Your task to perform on an android device: Go to battery settings Image 0: 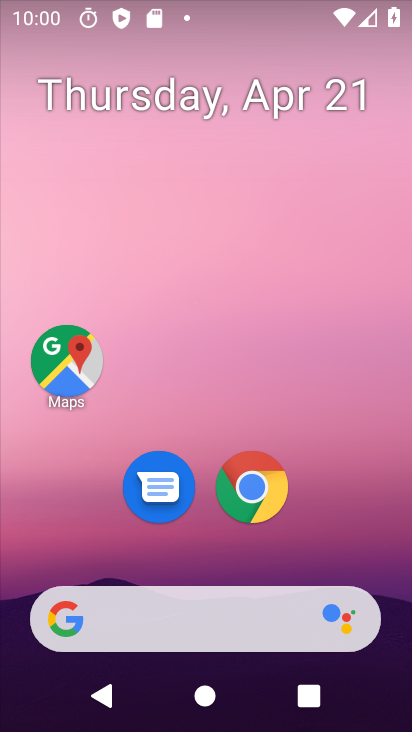
Step 0: click (343, 233)
Your task to perform on an android device: Go to battery settings Image 1: 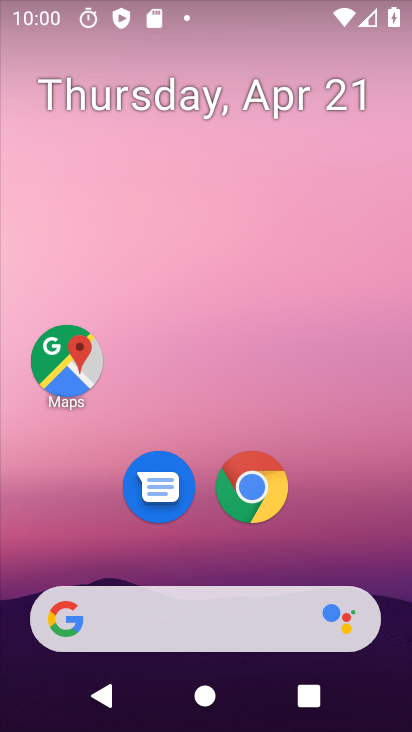
Step 1: drag from (398, 584) to (385, 304)
Your task to perform on an android device: Go to battery settings Image 2: 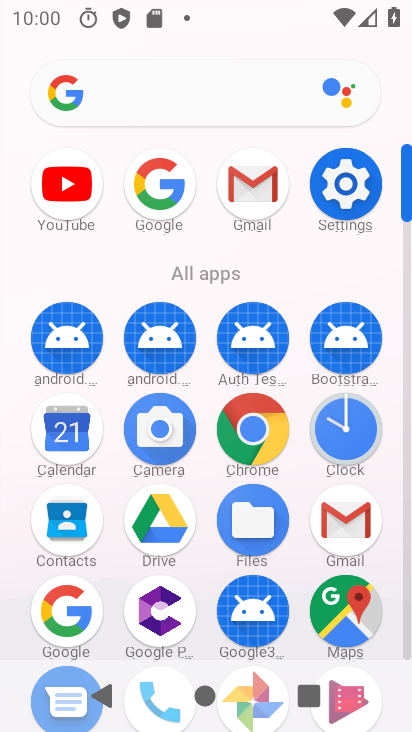
Step 2: drag from (403, 124) to (391, 11)
Your task to perform on an android device: Go to battery settings Image 3: 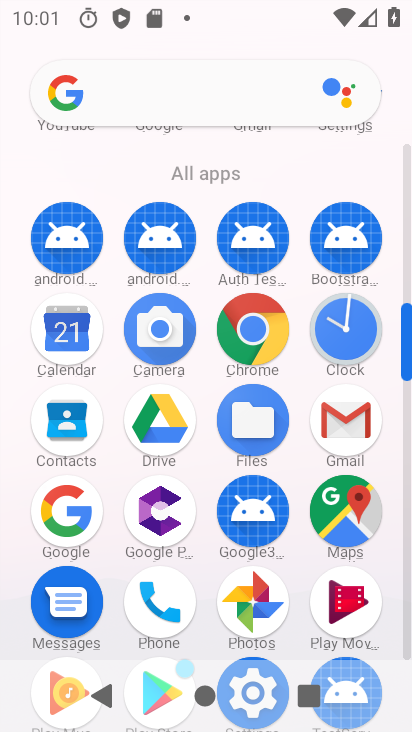
Step 3: drag from (407, 283) to (408, 143)
Your task to perform on an android device: Go to battery settings Image 4: 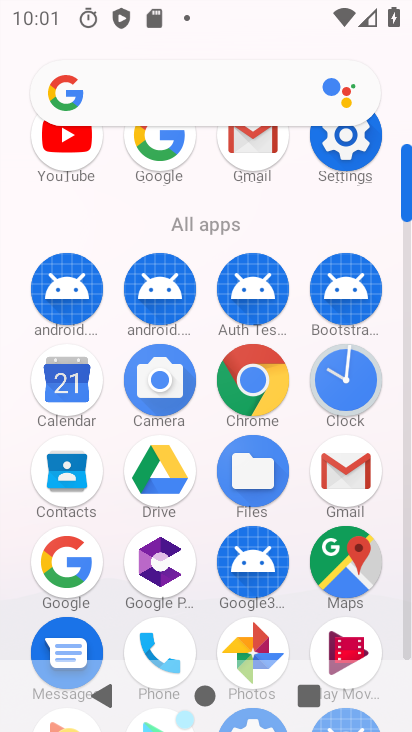
Step 4: click (399, 108)
Your task to perform on an android device: Go to battery settings Image 5: 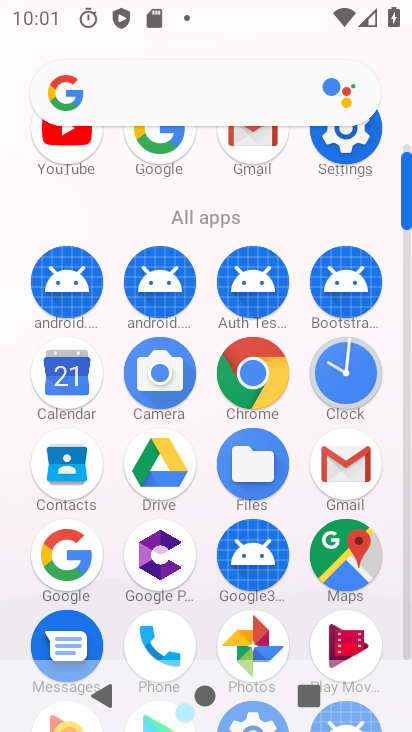
Step 5: click (398, 95)
Your task to perform on an android device: Go to battery settings Image 6: 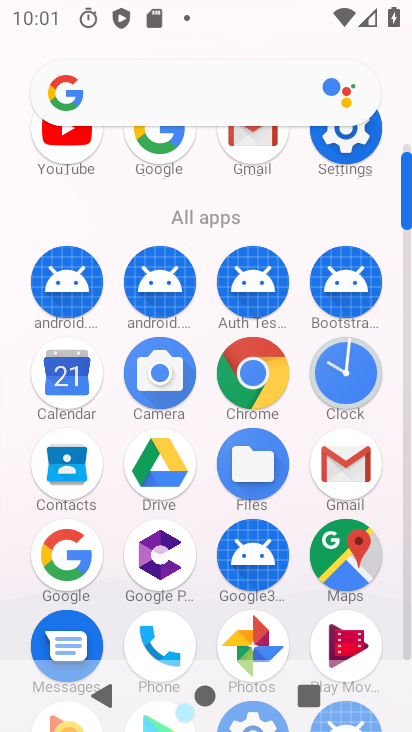
Step 6: drag from (401, 165) to (402, 120)
Your task to perform on an android device: Go to battery settings Image 7: 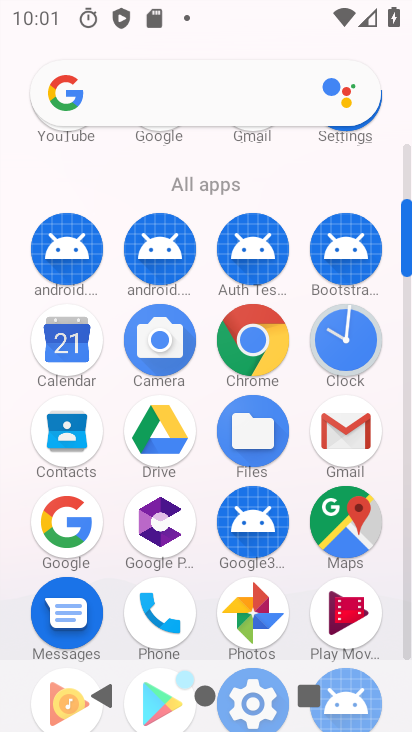
Step 7: drag from (404, 206) to (399, 146)
Your task to perform on an android device: Go to battery settings Image 8: 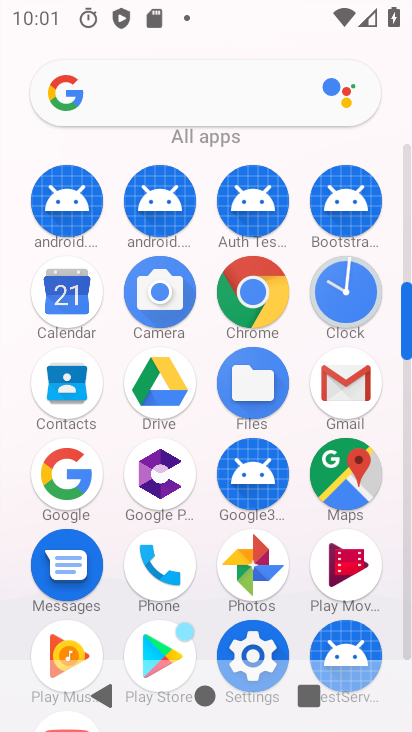
Step 8: click (262, 643)
Your task to perform on an android device: Go to battery settings Image 9: 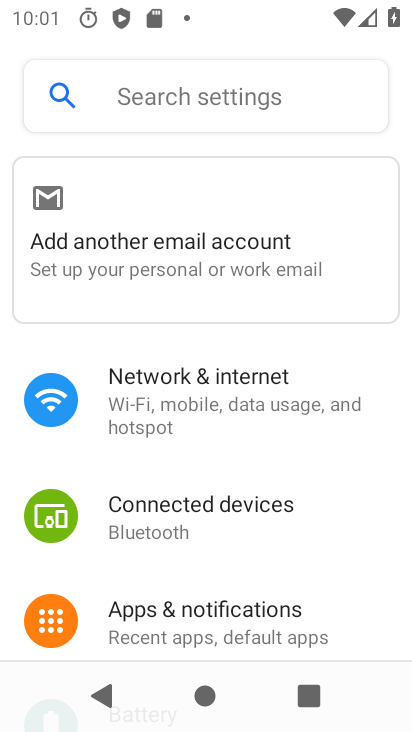
Step 9: click (350, 335)
Your task to perform on an android device: Go to battery settings Image 10: 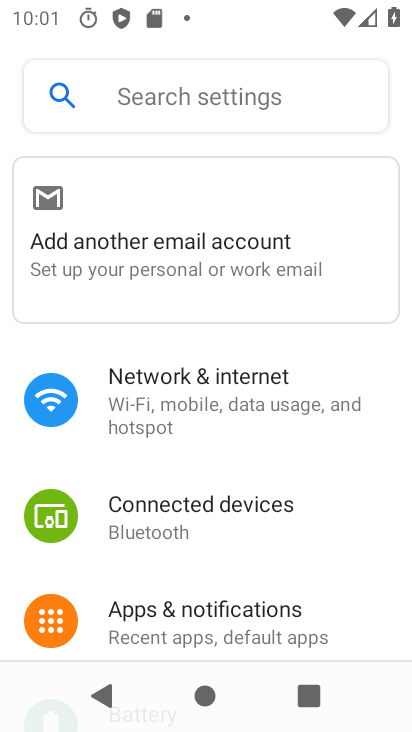
Step 10: drag from (373, 607) to (370, 305)
Your task to perform on an android device: Go to battery settings Image 11: 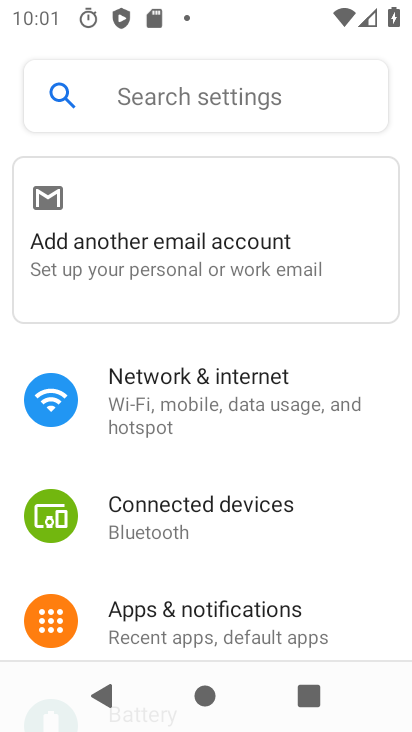
Step 11: drag from (366, 411) to (366, 317)
Your task to perform on an android device: Go to battery settings Image 12: 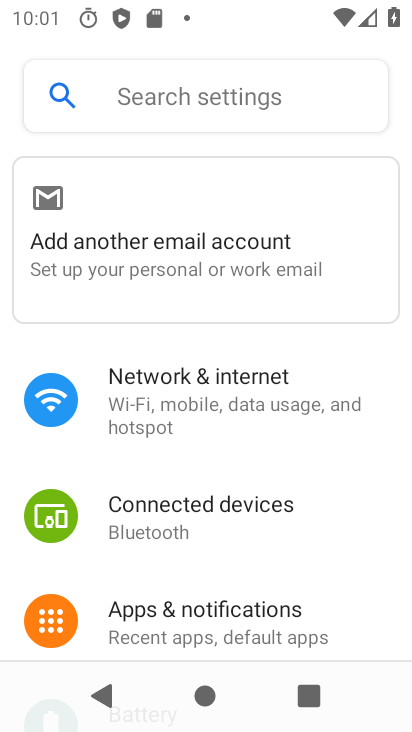
Step 12: drag from (368, 587) to (372, 328)
Your task to perform on an android device: Go to battery settings Image 13: 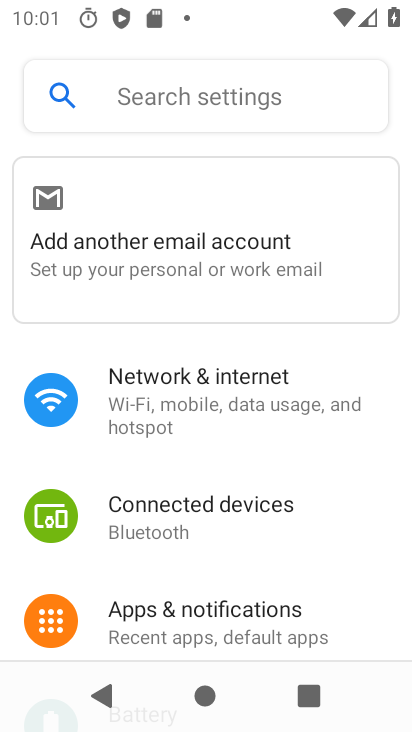
Step 13: drag from (362, 495) to (353, 280)
Your task to perform on an android device: Go to battery settings Image 14: 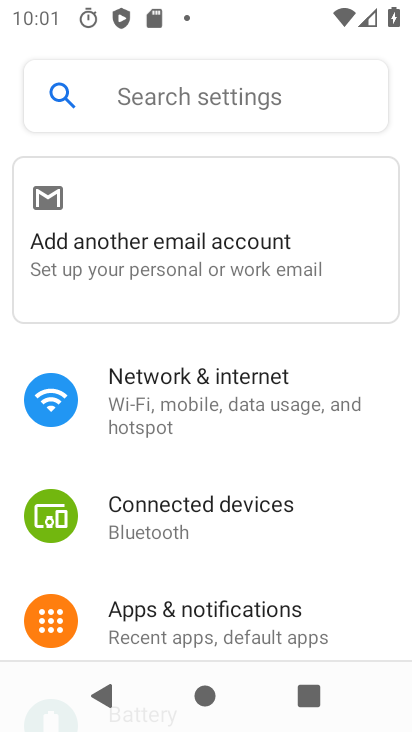
Step 14: drag from (358, 464) to (355, 304)
Your task to perform on an android device: Go to battery settings Image 15: 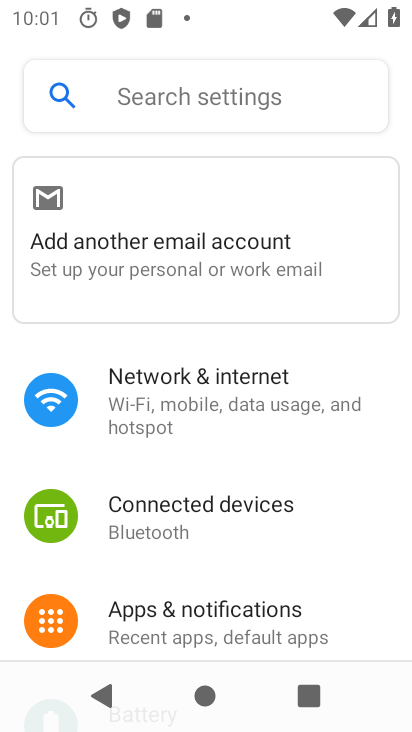
Step 15: drag from (358, 468) to (355, 308)
Your task to perform on an android device: Go to battery settings Image 16: 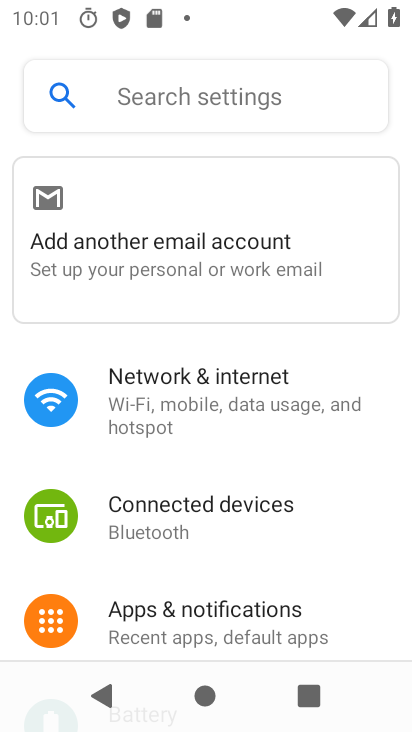
Step 16: drag from (369, 540) to (375, 340)
Your task to perform on an android device: Go to battery settings Image 17: 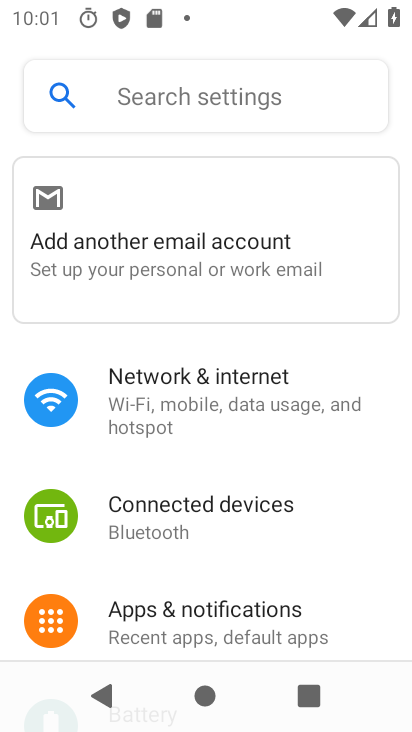
Step 17: drag from (375, 598) to (376, 210)
Your task to perform on an android device: Go to battery settings Image 18: 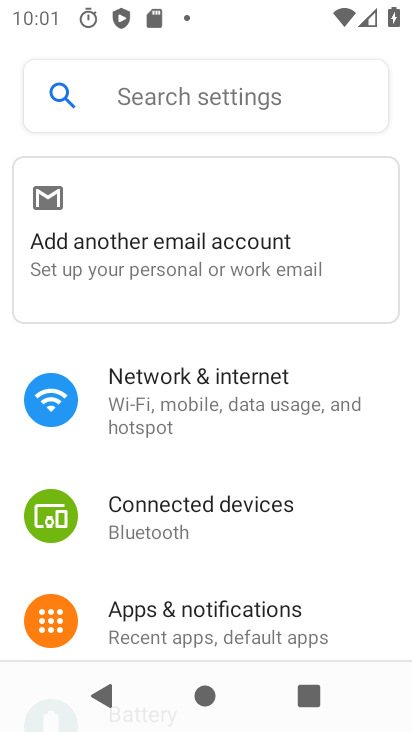
Step 18: drag from (379, 619) to (394, 243)
Your task to perform on an android device: Go to battery settings Image 19: 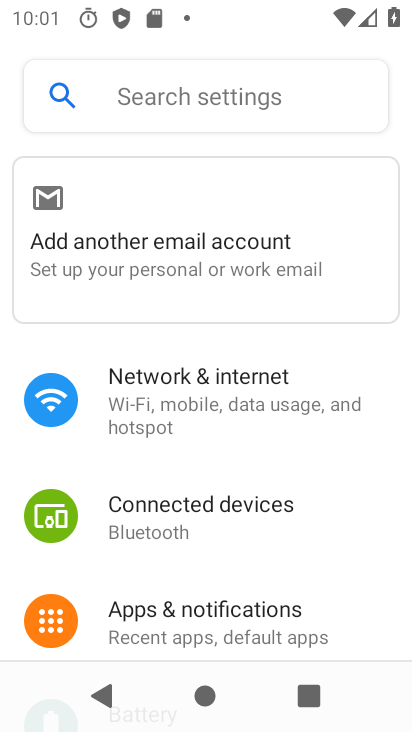
Step 19: drag from (378, 640) to (375, 243)
Your task to perform on an android device: Go to battery settings Image 20: 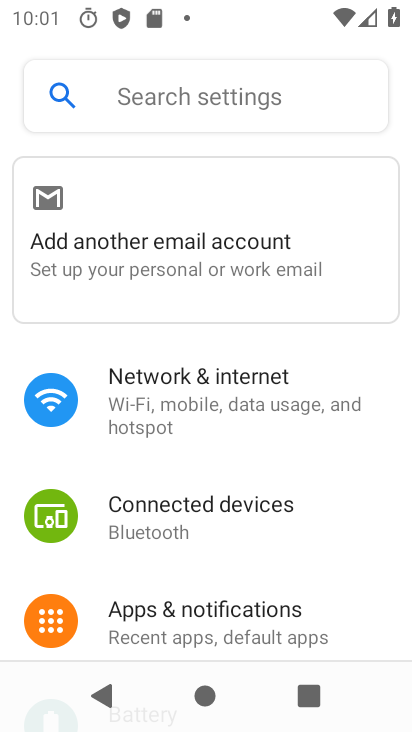
Step 20: drag from (364, 573) to (349, 205)
Your task to perform on an android device: Go to battery settings Image 21: 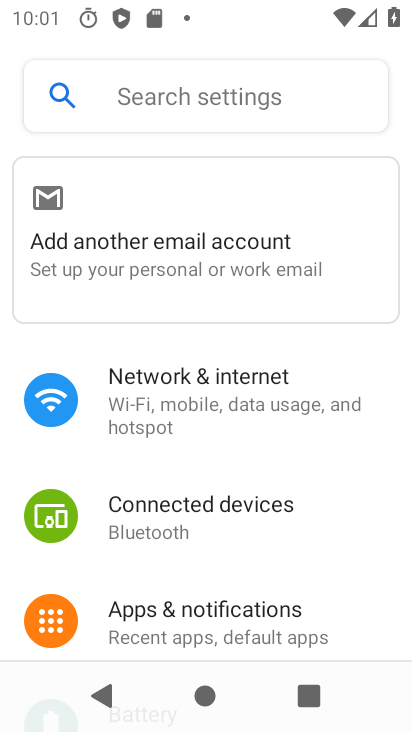
Step 21: drag from (364, 602) to (364, 333)
Your task to perform on an android device: Go to battery settings Image 22: 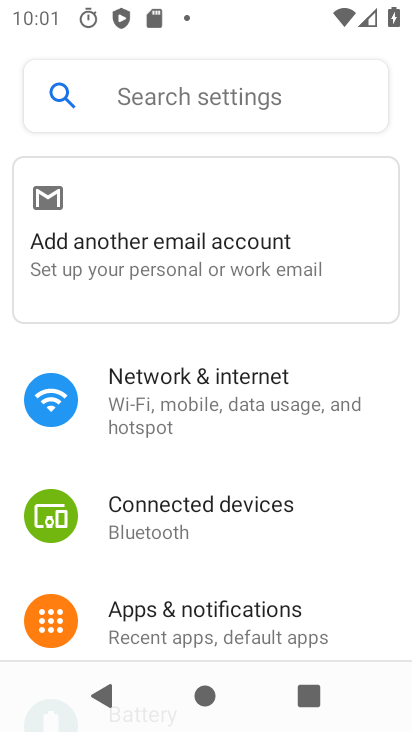
Step 22: drag from (351, 402) to (348, 328)
Your task to perform on an android device: Go to battery settings Image 23: 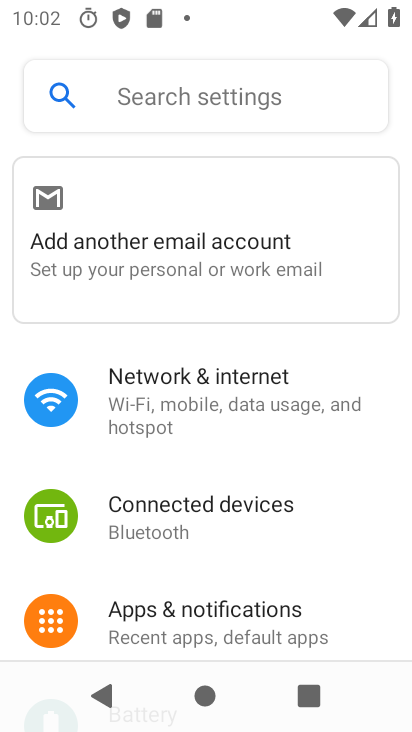
Step 23: drag from (402, 379) to (406, 228)
Your task to perform on an android device: Go to battery settings Image 24: 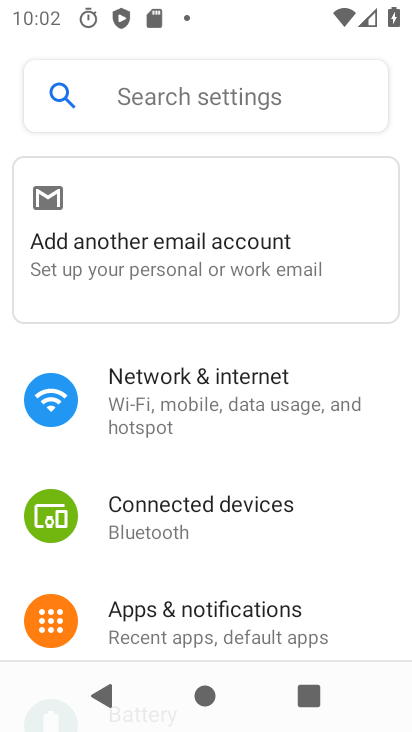
Step 24: drag from (365, 630) to (368, 338)
Your task to perform on an android device: Go to battery settings Image 25: 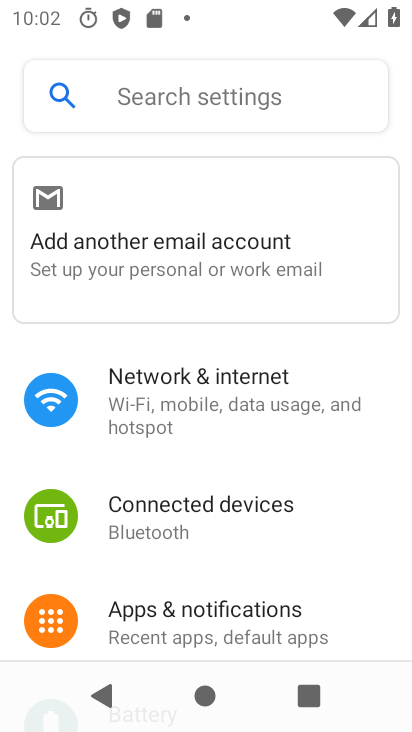
Step 25: drag from (378, 606) to (368, 291)
Your task to perform on an android device: Go to battery settings Image 26: 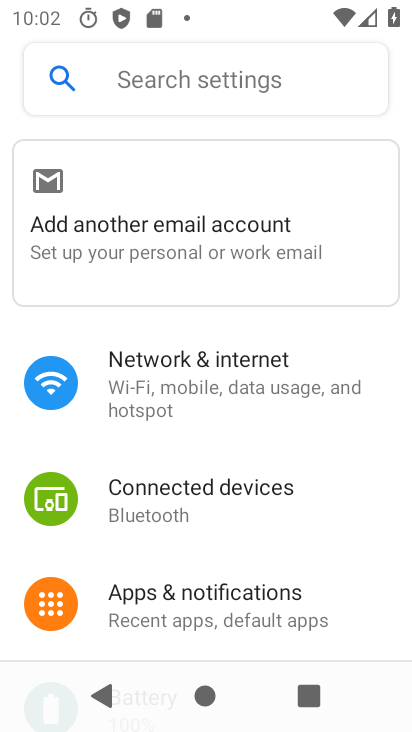
Step 26: drag from (358, 388) to (362, 266)
Your task to perform on an android device: Go to battery settings Image 27: 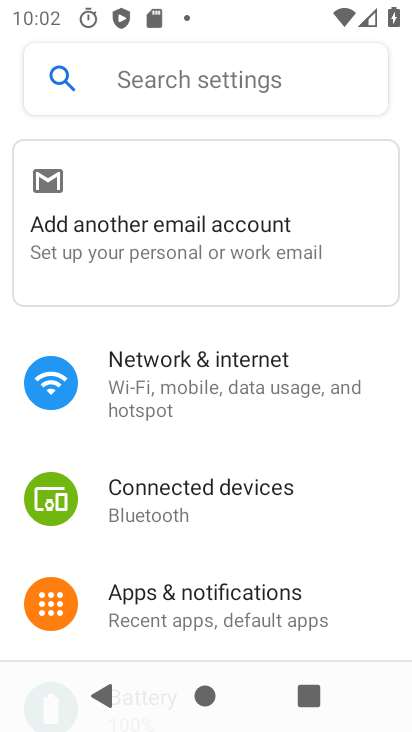
Step 27: drag from (346, 405) to (342, 355)
Your task to perform on an android device: Go to battery settings Image 28: 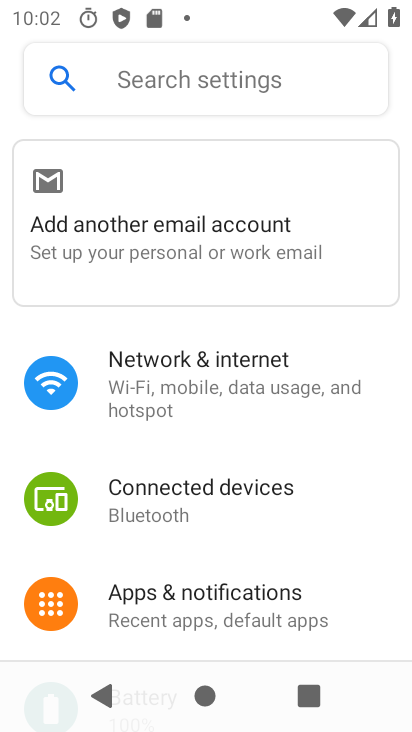
Step 28: drag from (377, 595) to (385, 277)
Your task to perform on an android device: Go to battery settings Image 29: 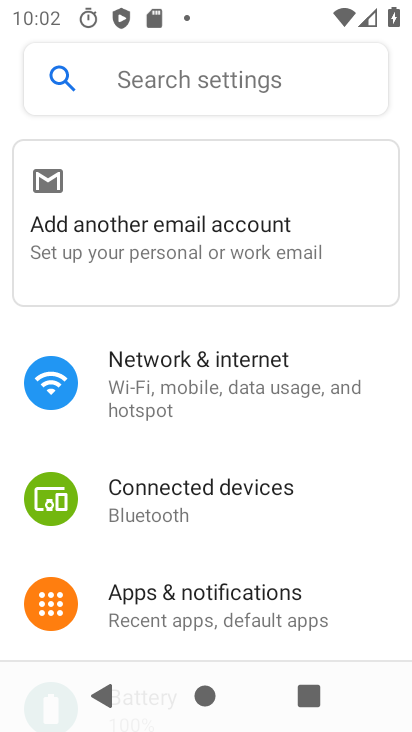
Step 29: drag from (385, 404) to (375, 229)
Your task to perform on an android device: Go to battery settings Image 30: 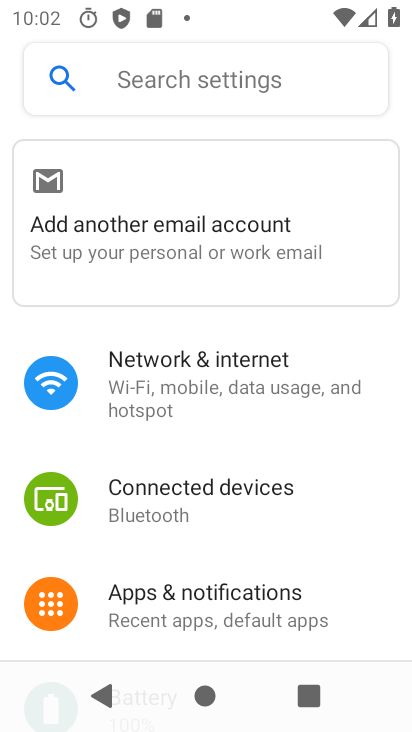
Step 30: drag from (370, 630) to (386, 222)
Your task to perform on an android device: Go to battery settings Image 31: 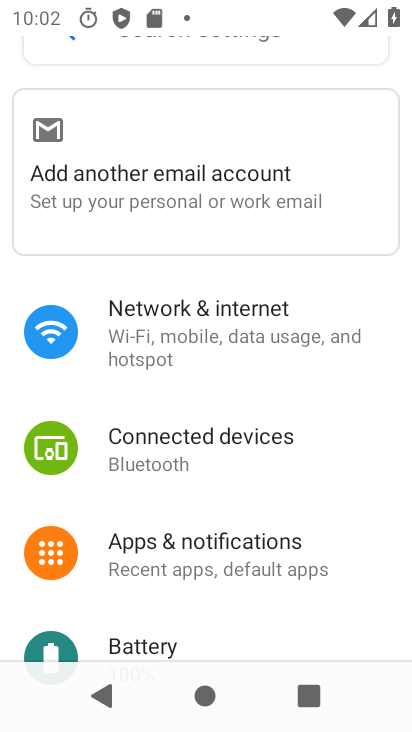
Step 31: drag from (374, 632) to (363, 356)
Your task to perform on an android device: Go to battery settings Image 32: 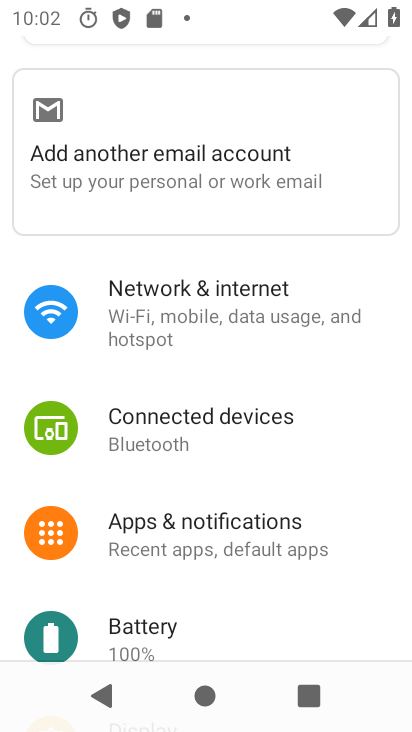
Step 32: click (135, 630)
Your task to perform on an android device: Go to battery settings Image 33: 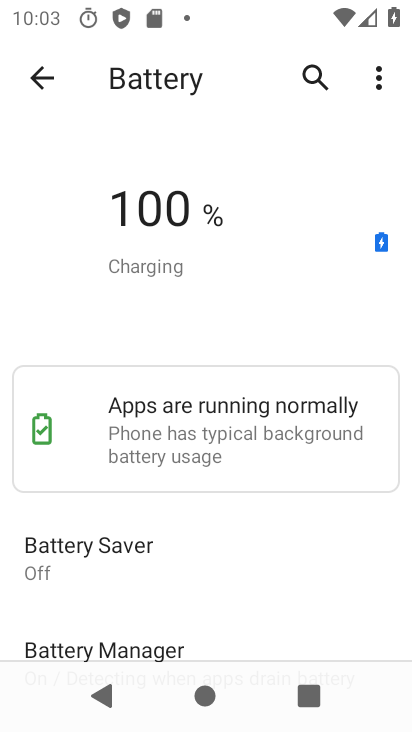
Step 33: task complete